Your task to perform on an android device: Check the weather Image 0: 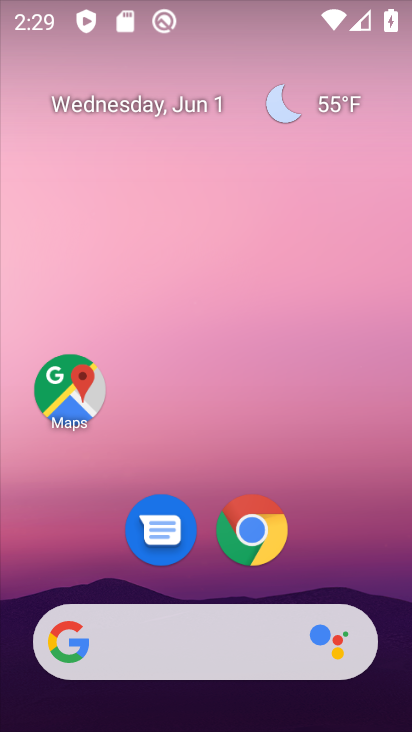
Step 0: click (337, 106)
Your task to perform on an android device: Check the weather Image 1: 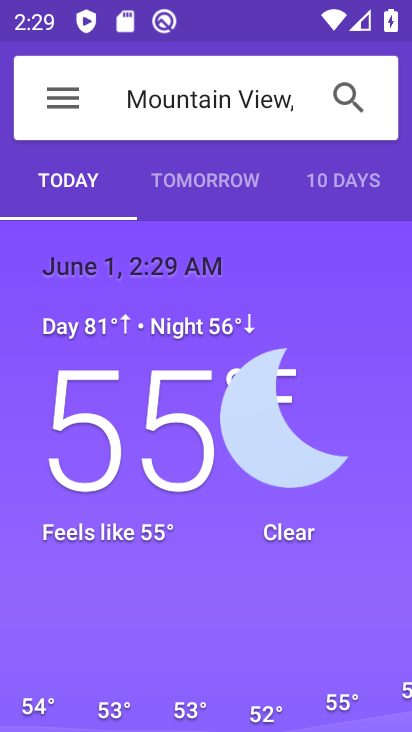
Step 1: task complete